Your task to perform on an android device: What is the recent news? Image 0: 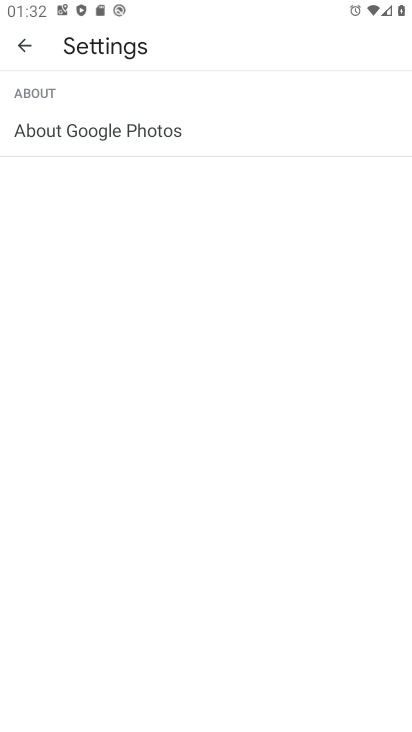
Step 0: press home button
Your task to perform on an android device: What is the recent news? Image 1: 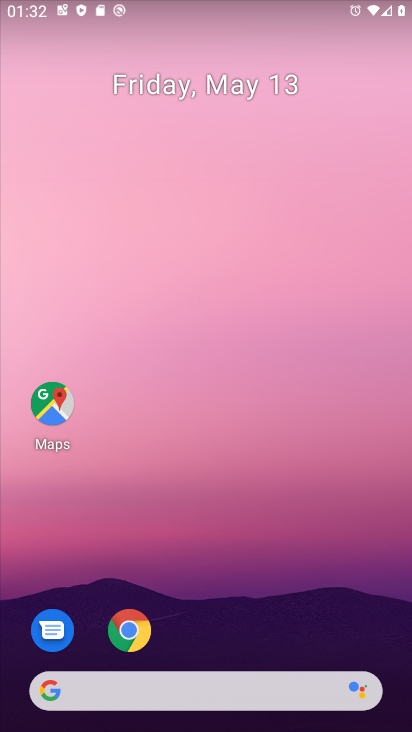
Step 1: drag from (275, 706) to (226, 244)
Your task to perform on an android device: What is the recent news? Image 2: 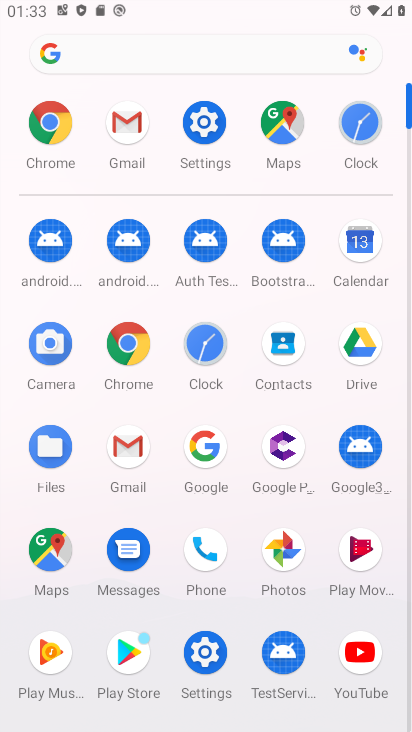
Step 2: click (122, 53)
Your task to perform on an android device: What is the recent news? Image 3: 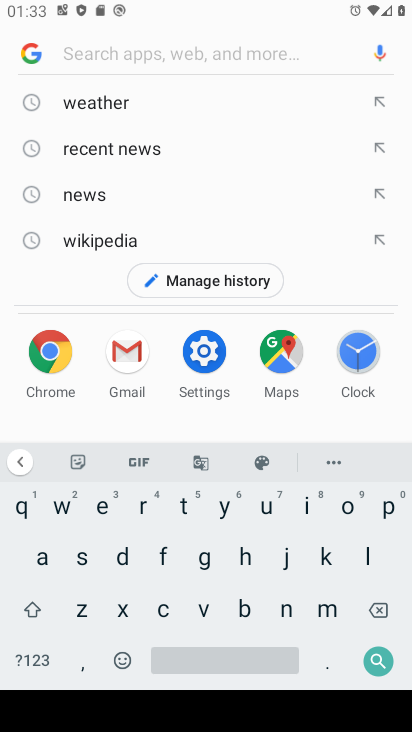
Step 3: click (129, 186)
Your task to perform on an android device: What is the recent news? Image 4: 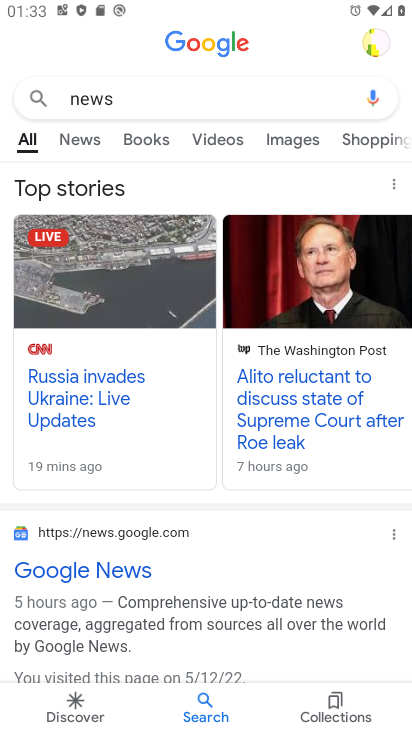
Step 4: task complete